Your task to perform on an android device: What is the news today? Image 0: 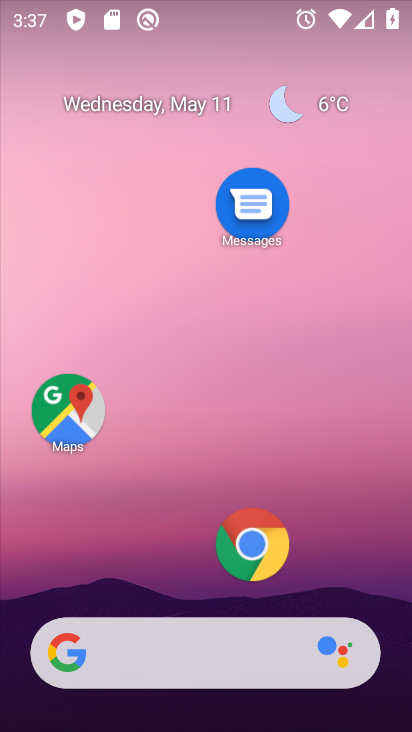
Step 0: click (170, 653)
Your task to perform on an android device: What is the news today? Image 1: 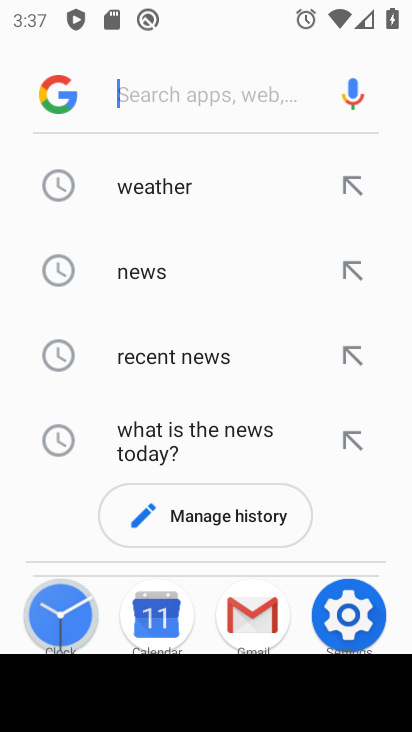
Step 1: type "news today"
Your task to perform on an android device: What is the news today? Image 2: 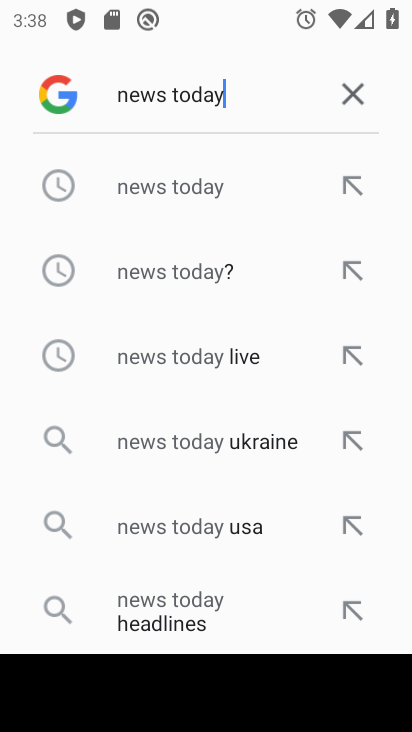
Step 2: click (174, 191)
Your task to perform on an android device: What is the news today? Image 3: 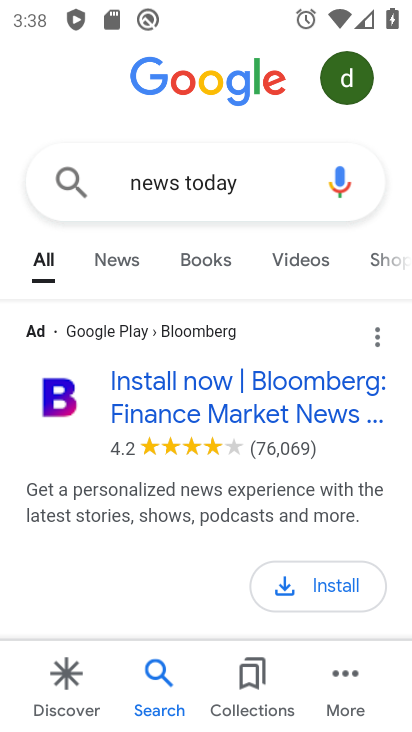
Step 3: task complete